Your task to perform on an android device: stop showing notifications on the lock screen Image 0: 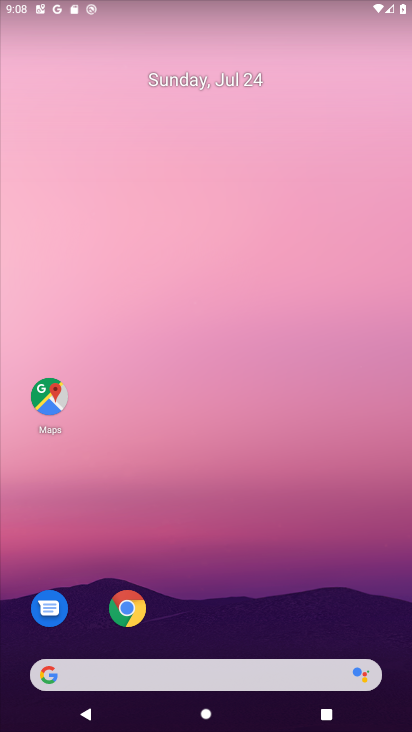
Step 0: drag from (212, 608) to (244, 98)
Your task to perform on an android device: stop showing notifications on the lock screen Image 1: 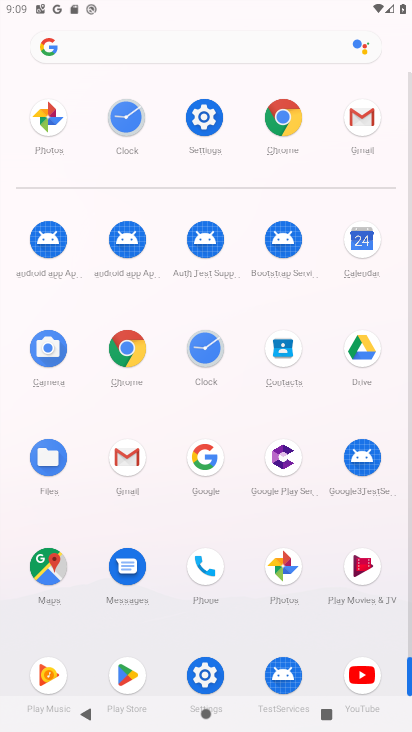
Step 1: click (208, 110)
Your task to perform on an android device: stop showing notifications on the lock screen Image 2: 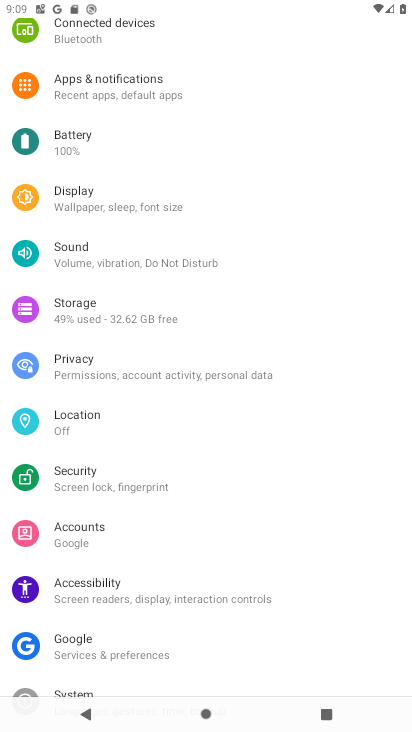
Step 2: click (136, 82)
Your task to perform on an android device: stop showing notifications on the lock screen Image 3: 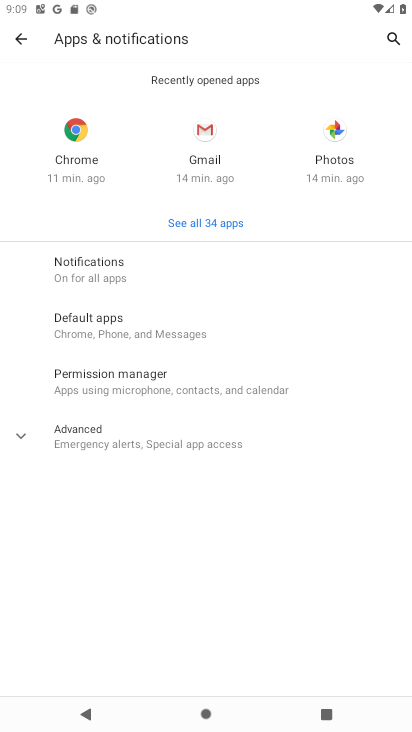
Step 3: click (130, 283)
Your task to perform on an android device: stop showing notifications on the lock screen Image 4: 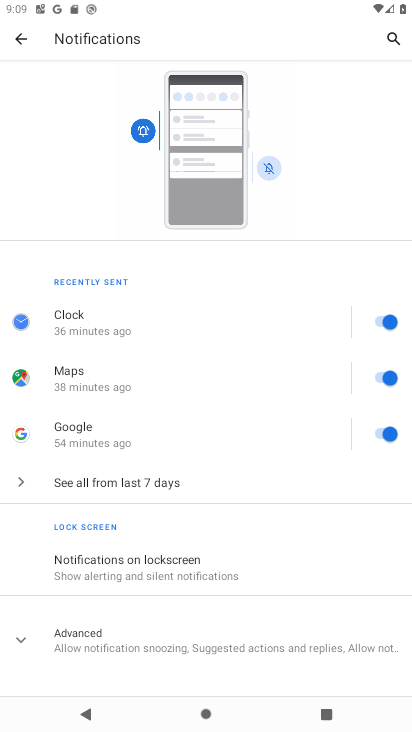
Step 4: click (151, 560)
Your task to perform on an android device: stop showing notifications on the lock screen Image 5: 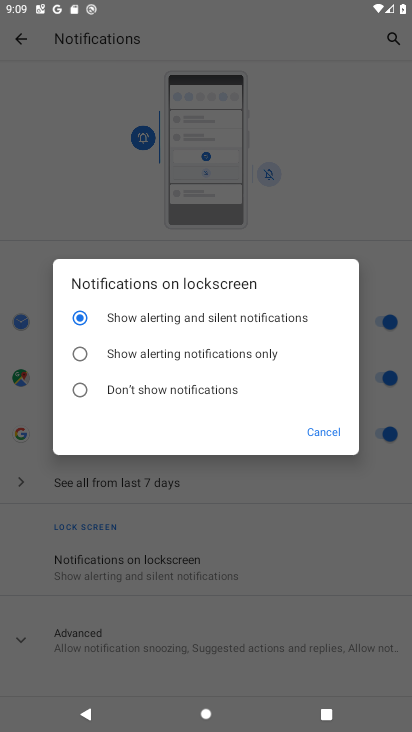
Step 5: click (137, 383)
Your task to perform on an android device: stop showing notifications on the lock screen Image 6: 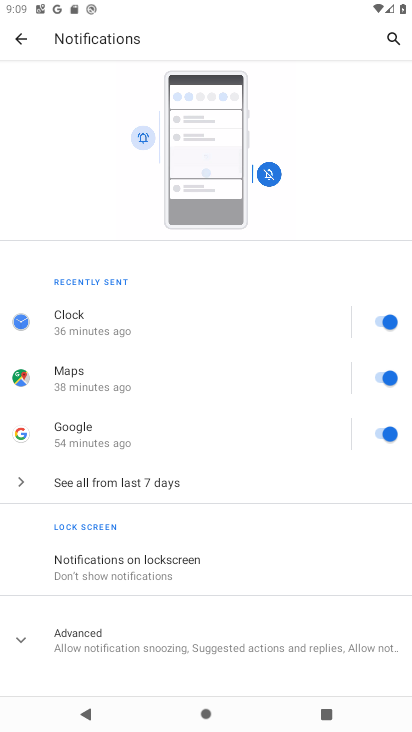
Step 6: task complete